Your task to perform on an android device: Open the map Image 0: 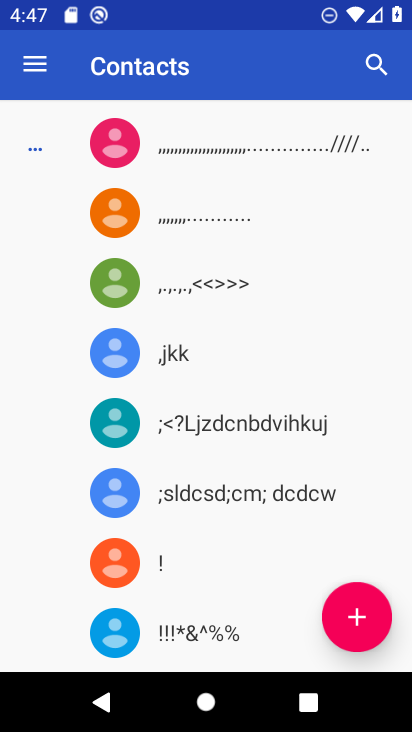
Step 0: press home button
Your task to perform on an android device: Open the map Image 1: 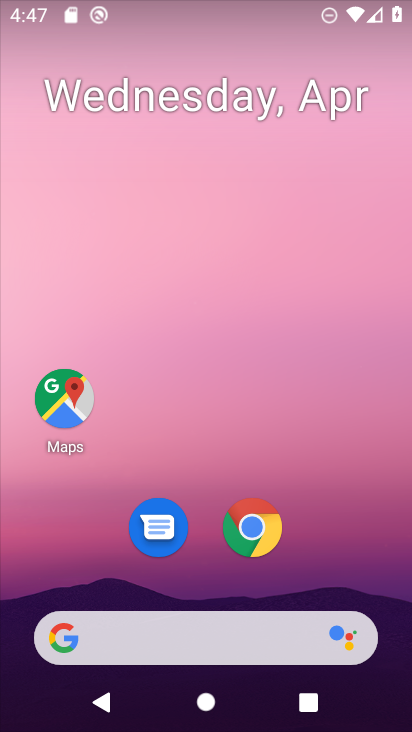
Step 1: click (59, 407)
Your task to perform on an android device: Open the map Image 2: 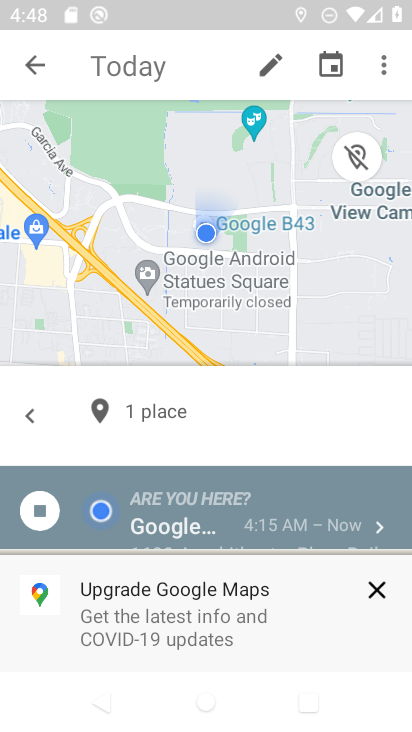
Step 2: task complete